Your task to perform on an android device: Open wifi settings Image 0: 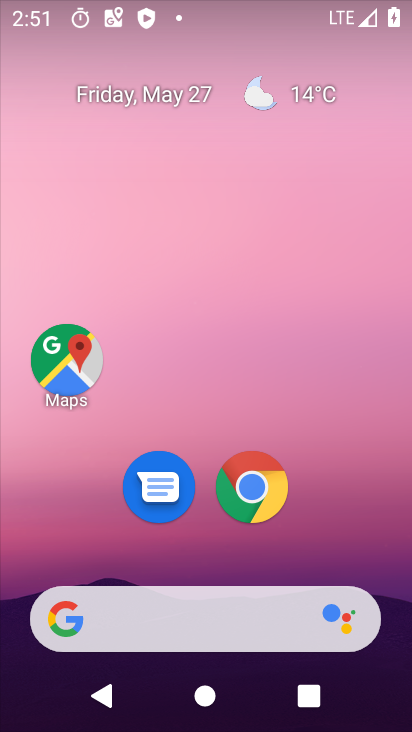
Step 0: drag from (358, 493) to (297, 146)
Your task to perform on an android device: Open wifi settings Image 1: 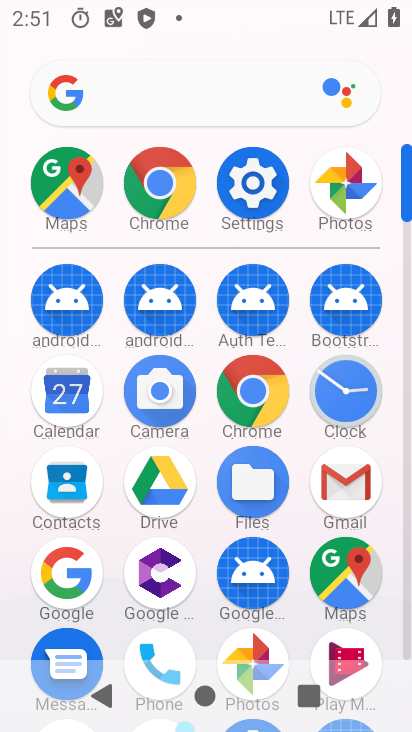
Step 1: click (256, 176)
Your task to perform on an android device: Open wifi settings Image 2: 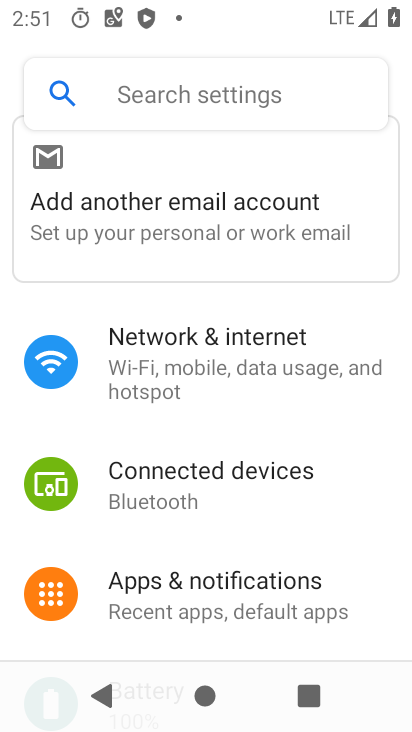
Step 2: click (186, 205)
Your task to perform on an android device: Open wifi settings Image 3: 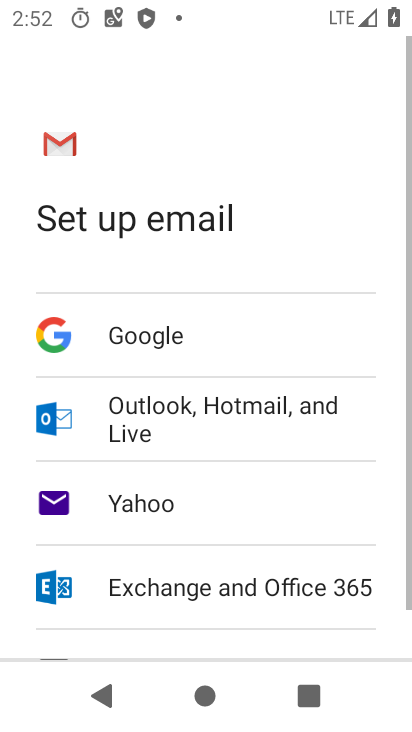
Step 3: press back button
Your task to perform on an android device: Open wifi settings Image 4: 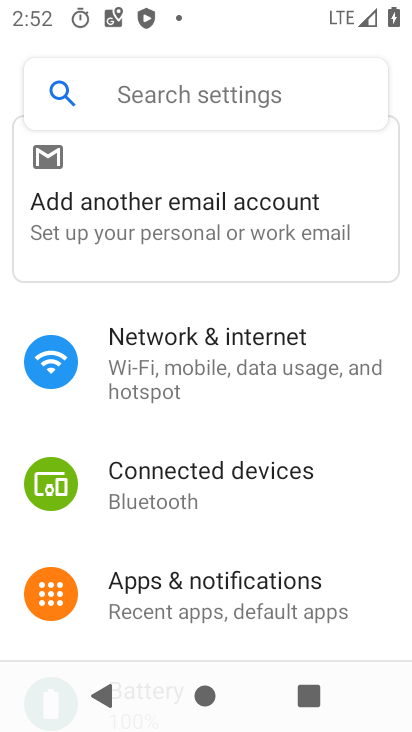
Step 4: click (209, 339)
Your task to perform on an android device: Open wifi settings Image 5: 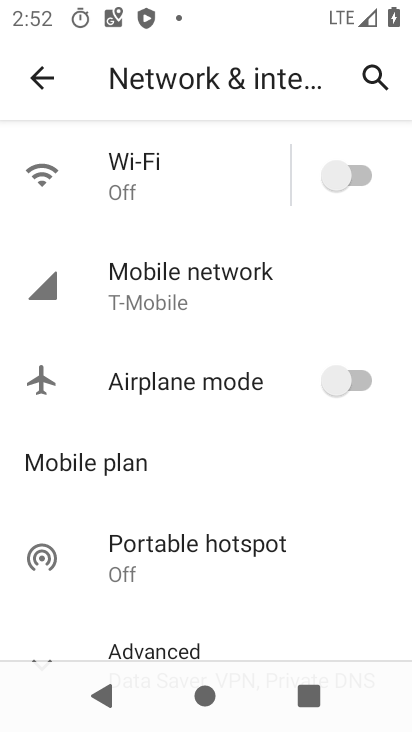
Step 5: click (166, 179)
Your task to perform on an android device: Open wifi settings Image 6: 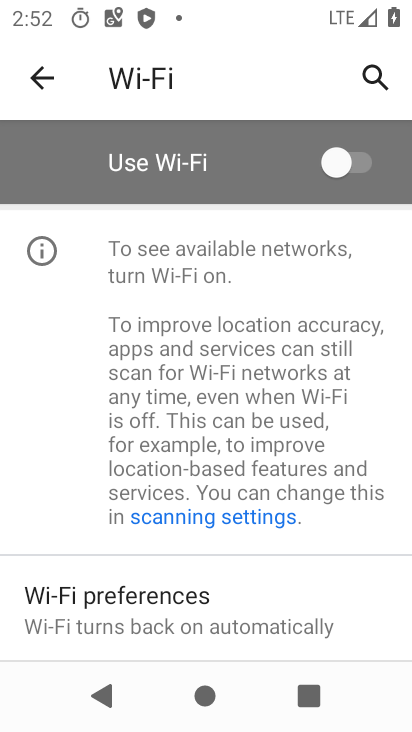
Step 6: click (354, 168)
Your task to perform on an android device: Open wifi settings Image 7: 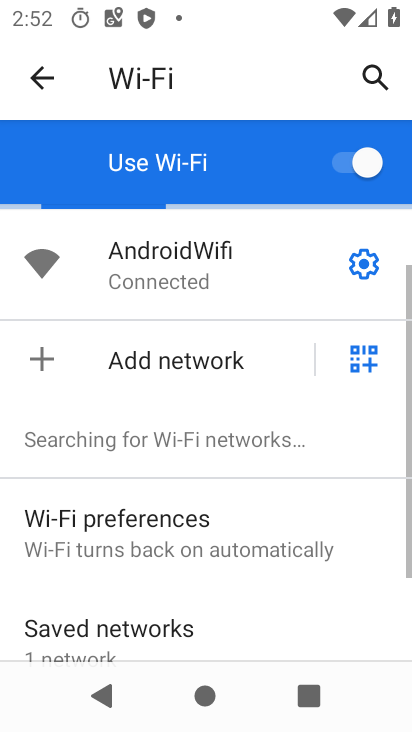
Step 7: click (367, 281)
Your task to perform on an android device: Open wifi settings Image 8: 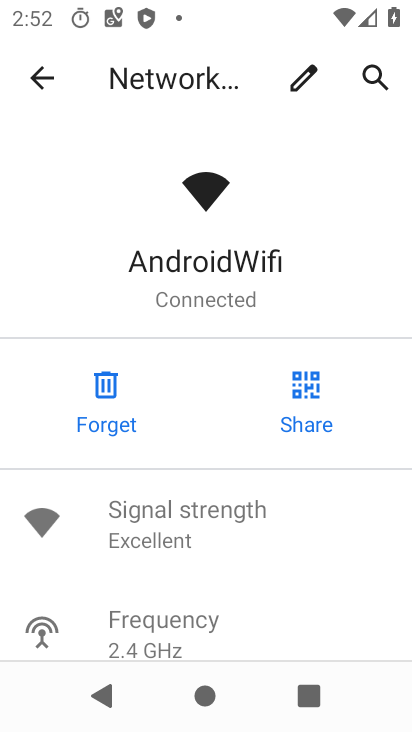
Step 8: task complete